Your task to perform on an android device: Open location settings Image 0: 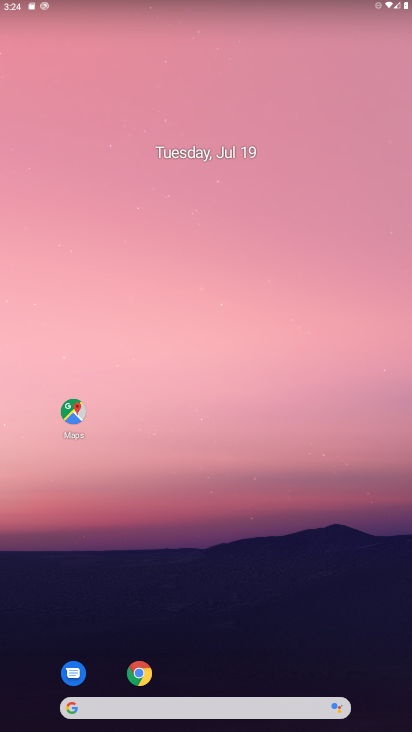
Step 0: drag from (211, 676) to (214, 79)
Your task to perform on an android device: Open location settings Image 1: 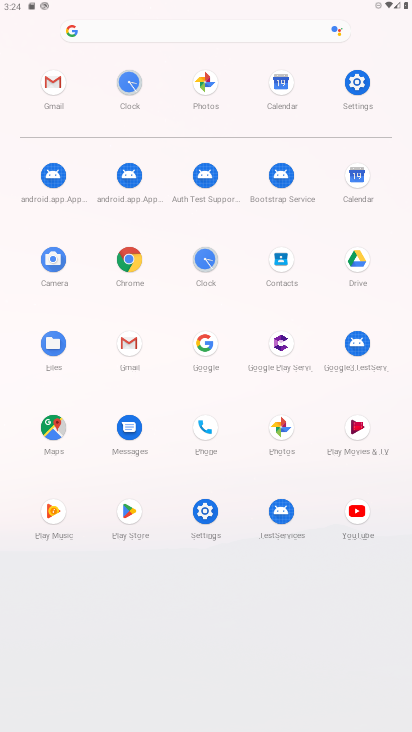
Step 1: click (205, 530)
Your task to perform on an android device: Open location settings Image 2: 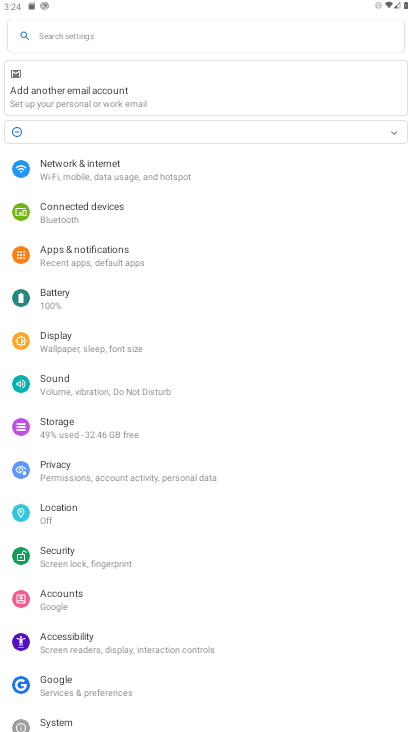
Step 2: click (65, 520)
Your task to perform on an android device: Open location settings Image 3: 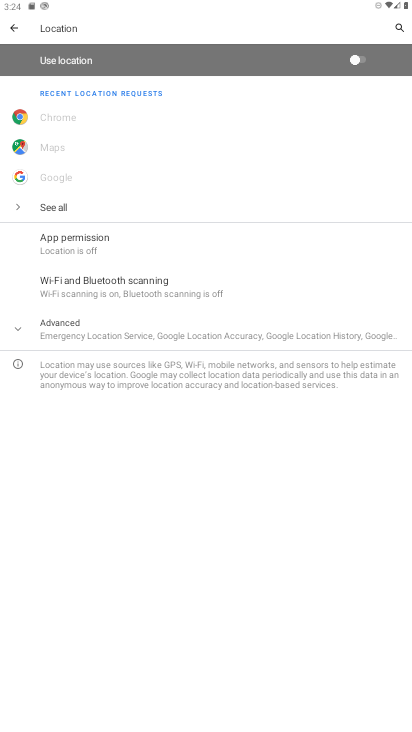
Step 3: task complete